Your task to perform on an android device: Go to Google Image 0: 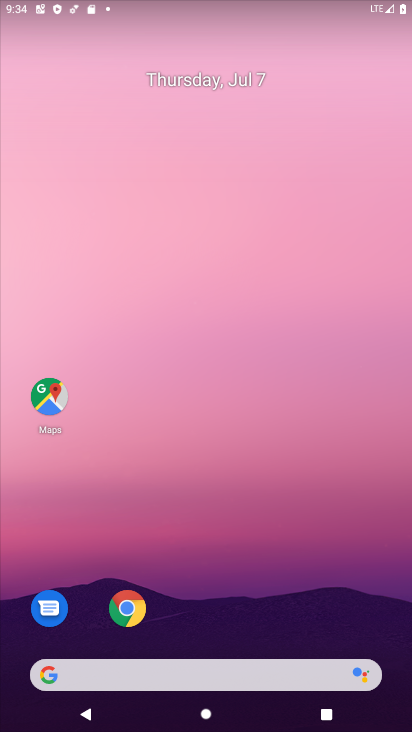
Step 0: drag from (243, 555) to (290, 54)
Your task to perform on an android device: Go to Google Image 1: 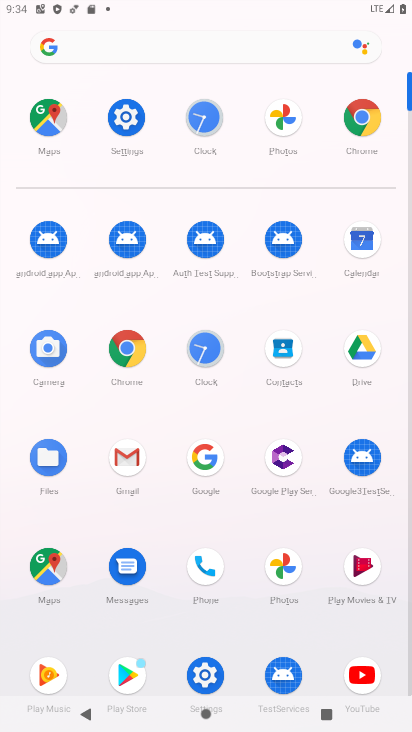
Step 1: click (202, 454)
Your task to perform on an android device: Go to Google Image 2: 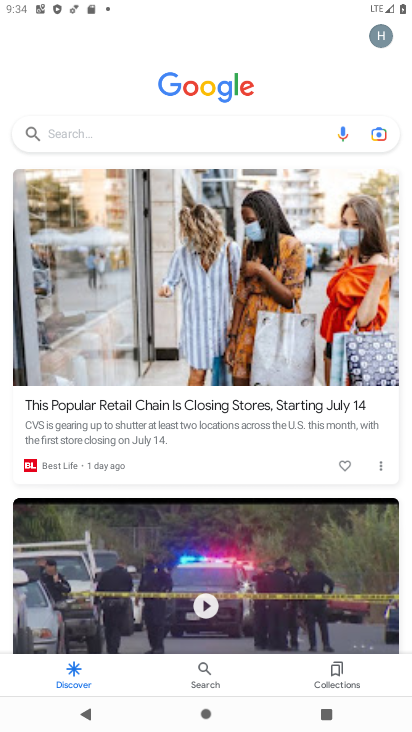
Step 2: task complete